Your task to perform on an android device: open app "Adobe Express: Graphic Design" (install if not already installed) Image 0: 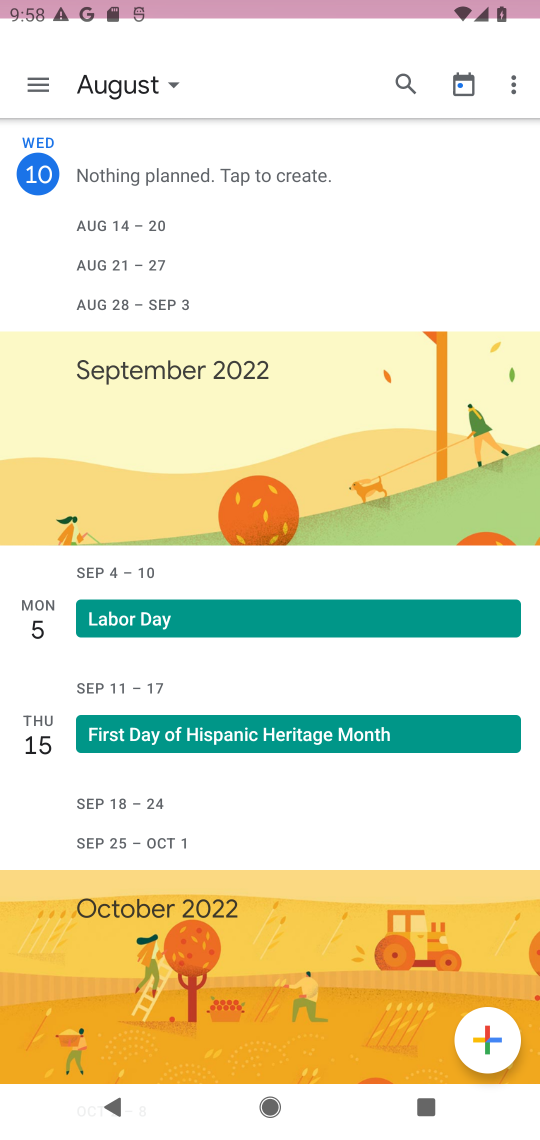
Step 0: press home button
Your task to perform on an android device: open app "Adobe Express: Graphic Design" (install if not already installed) Image 1: 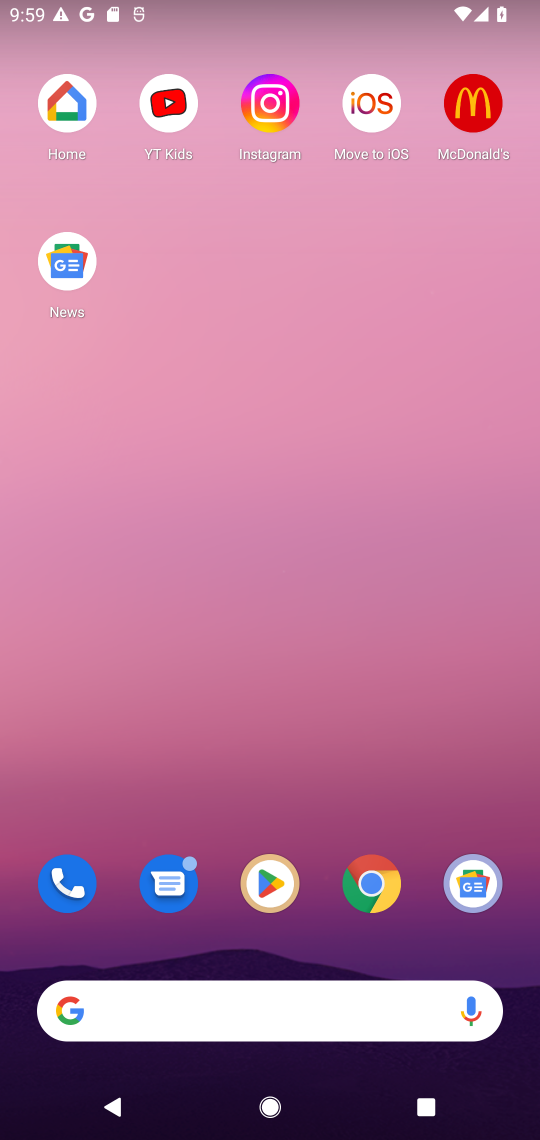
Step 1: drag from (434, 692) to (428, 77)
Your task to perform on an android device: open app "Adobe Express: Graphic Design" (install if not already installed) Image 2: 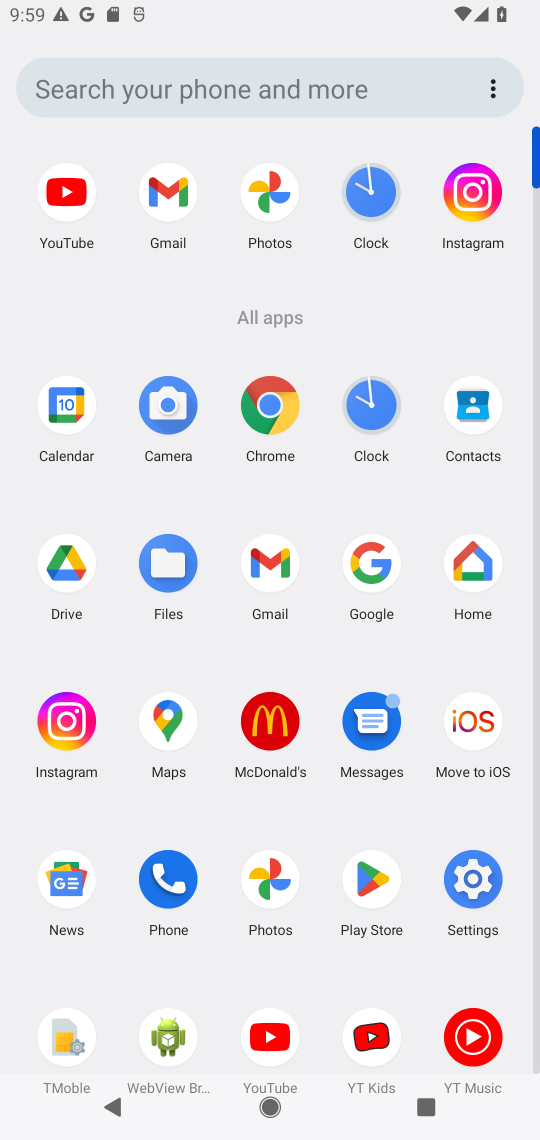
Step 2: click (373, 887)
Your task to perform on an android device: open app "Adobe Express: Graphic Design" (install if not already installed) Image 3: 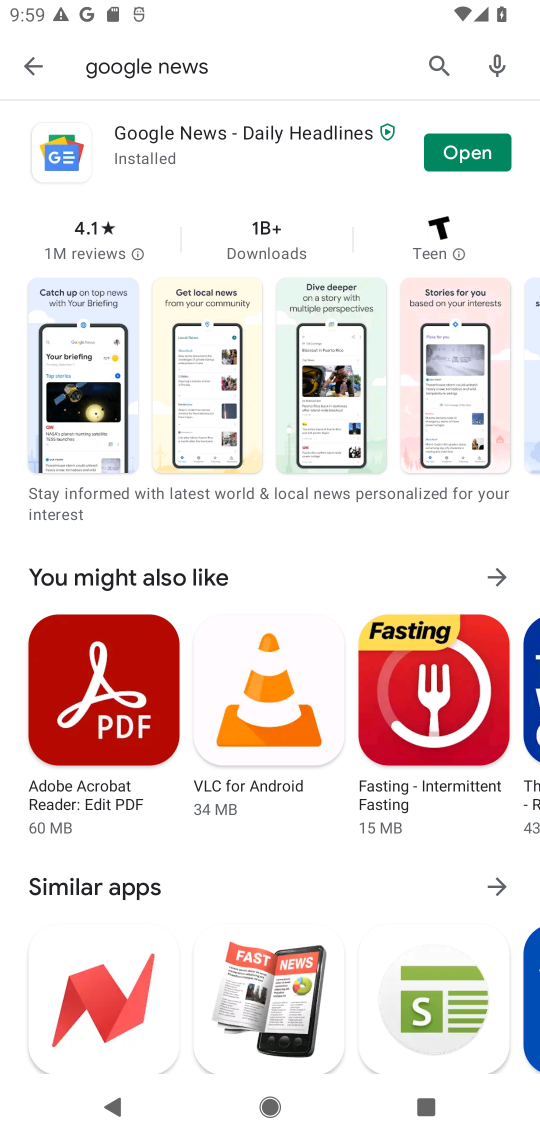
Step 3: click (441, 60)
Your task to perform on an android device: open app "Adobe Express: Graphic Design" (install if not already installed) Image 4: 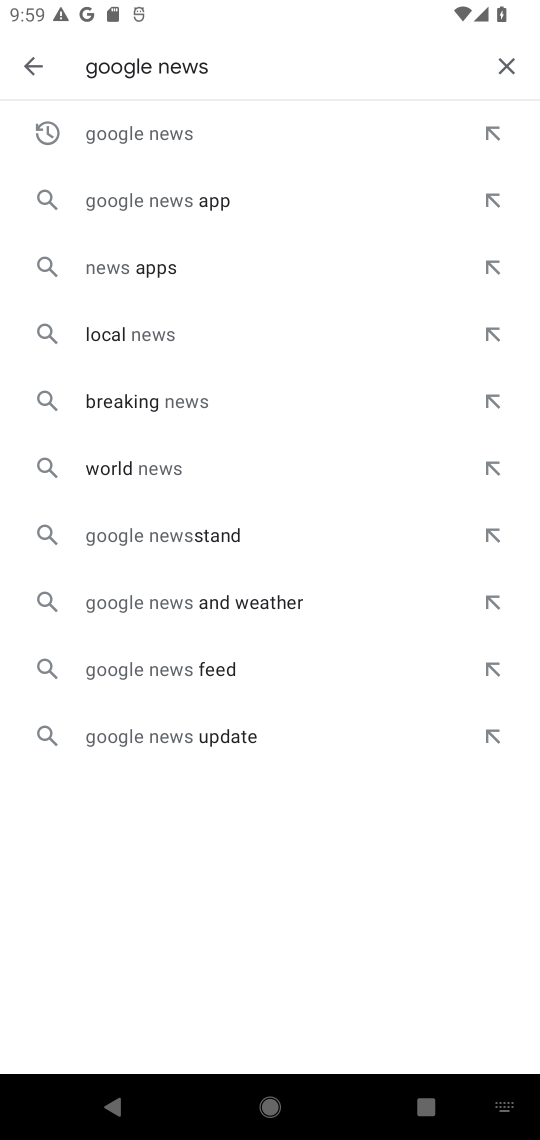
Step 4: click (502, 67)
Your task to perform on an android device: open app "Adobe Express: Graphic Design" (install if not already installed) Image 5: 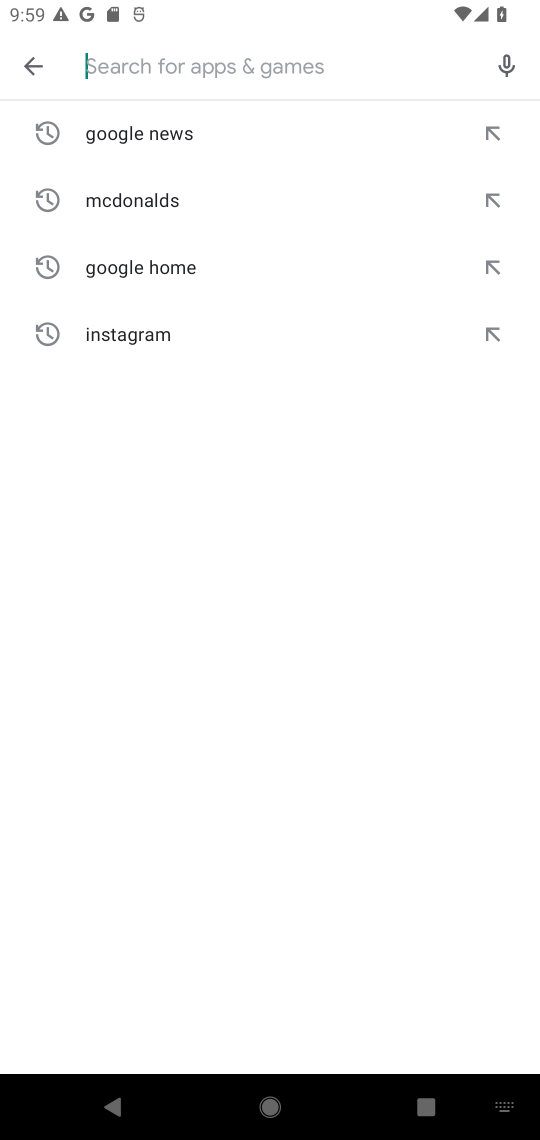
Step 5: press enter
Your task to perform on an android device: open app "Adobe Express: Graphic Design" (install if not already installed) Image 6: 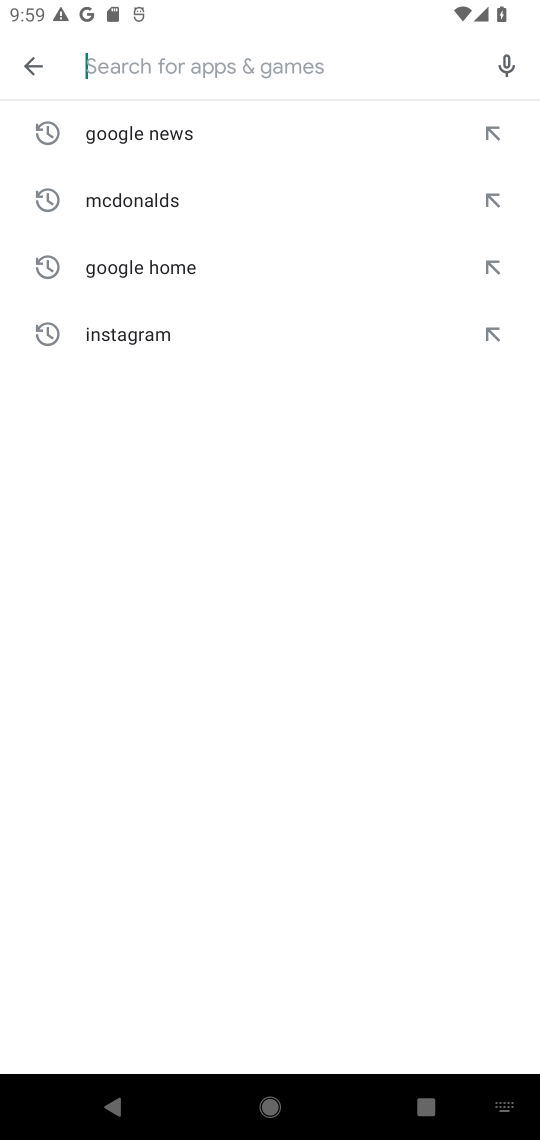
Step 6: type "Adobe Express: Graphic Design"
Your task to perform on an android device: open app "Adobe Express: Graphic Design" (install if not already installed) Image 7: 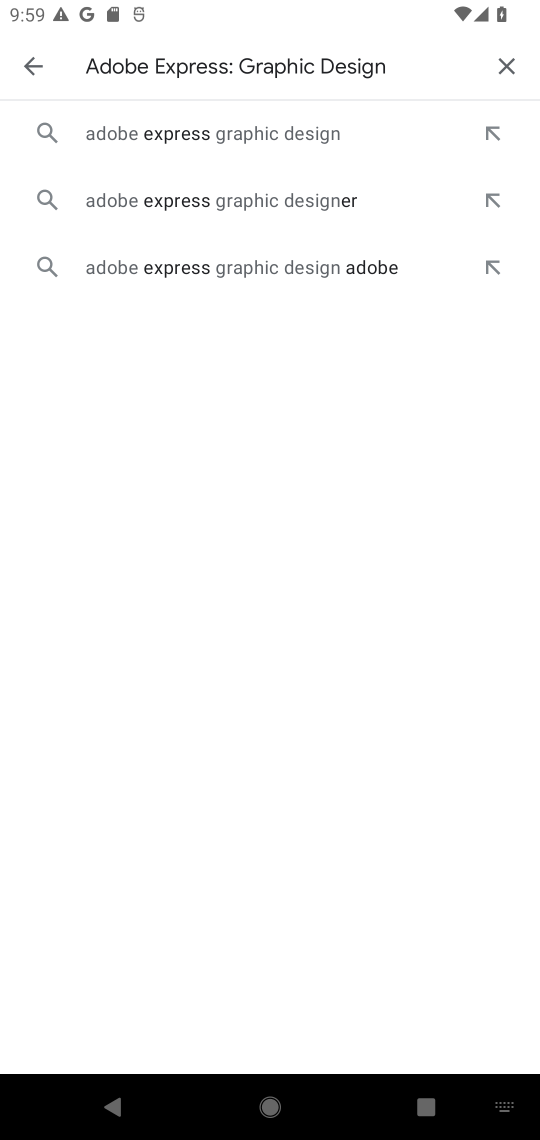
Step 7: click (295, 128)
Your task to perform on an android device: open app "Adobe Express: Graphic Design" (install if not already installed) Image 8: 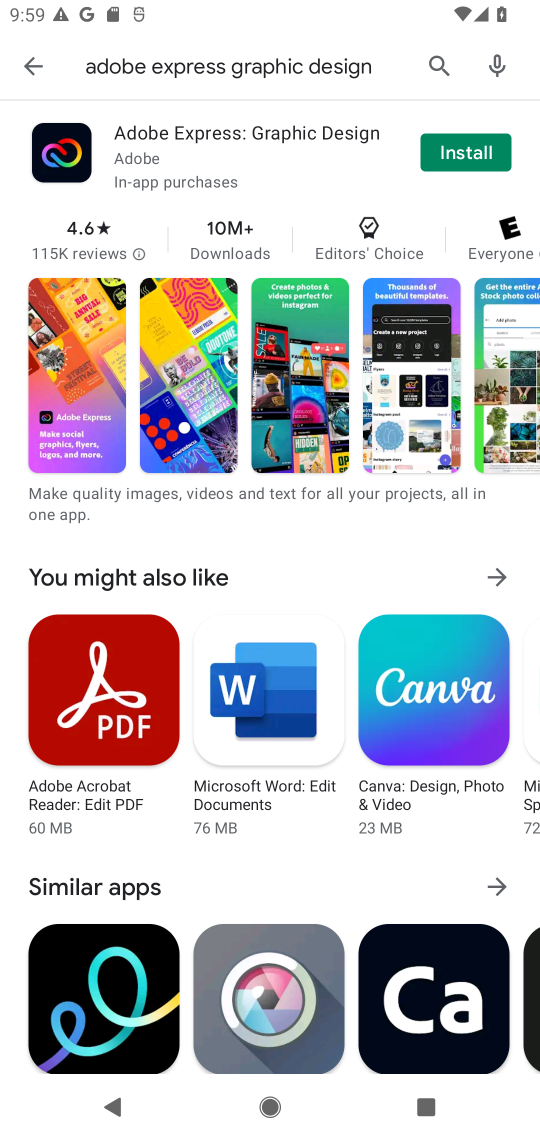
Step 8: click (459, 149)
Your task to perform on an android device: open app "Adobe Express: Graphic Design" (install if not already installed) Image 9: 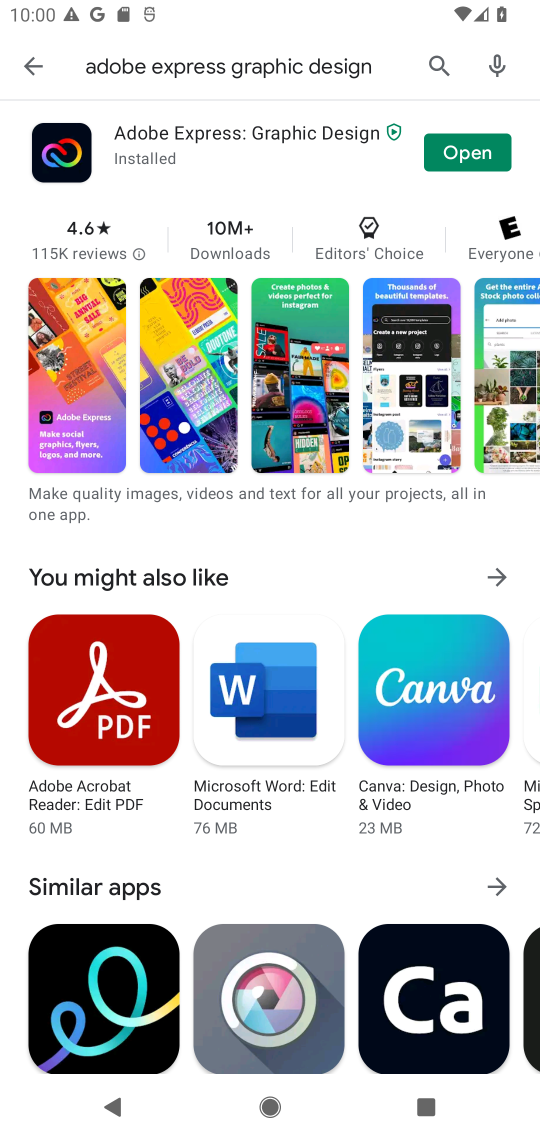
Step 9: click (468, 152)
Your task to perform on an android device: open app "Adobe Express: Graphic Design" (install if not already installed) Image 10: 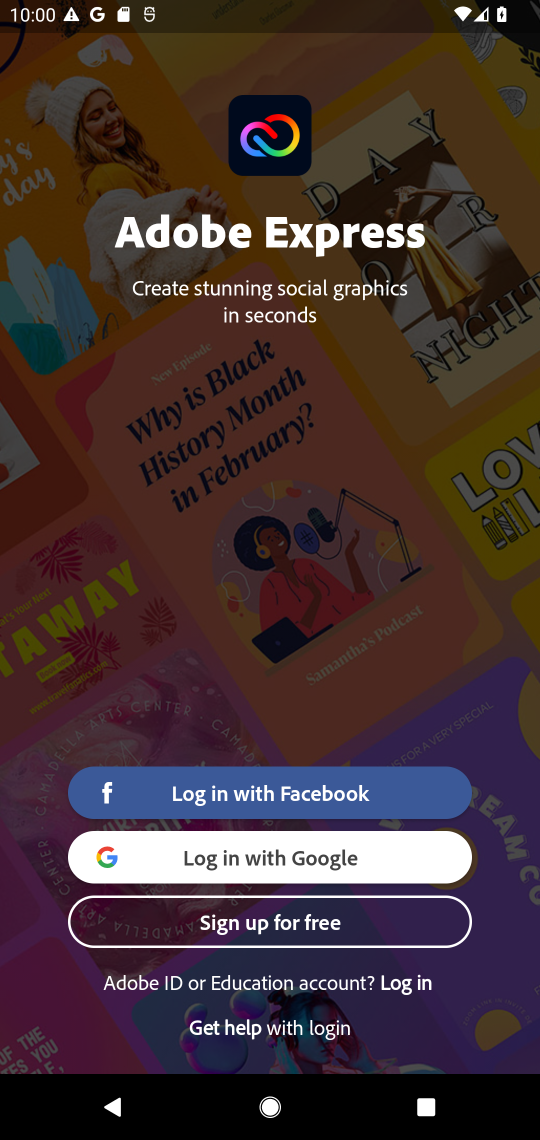
Step 10: task complete